Your task to perform on an android device: open app "Upside-Cash back on gas & food" Image 0: 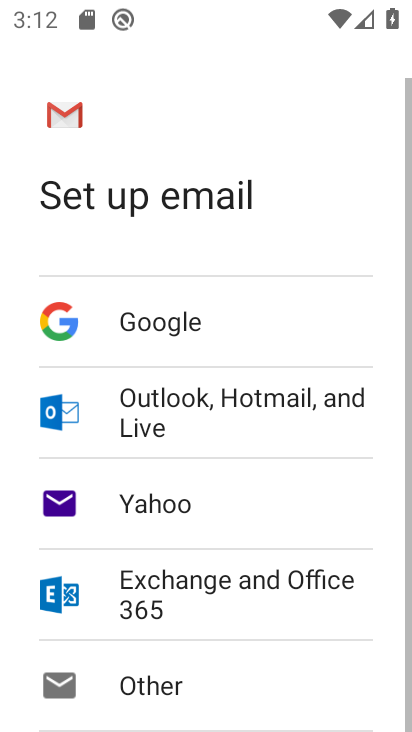
Step 0: press home button
Your task to perform on an android device: open app "Upside-Cash back on gas & food" Image 1: 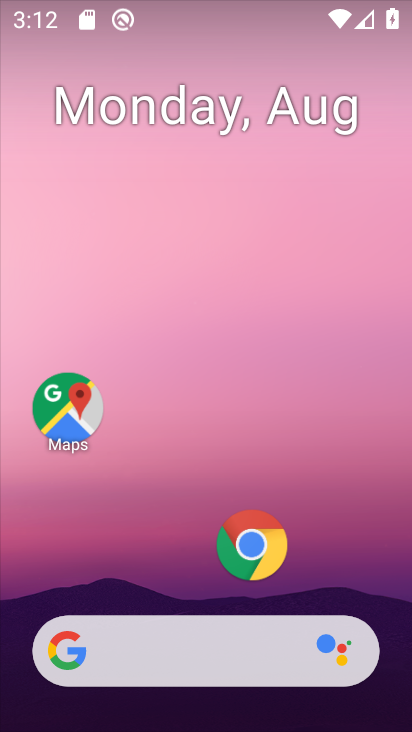
Step 1: drag from (148, 558) to (238, 3)
Your task to perform on an android device: open app "Upside-Cash back on gas & food" Image 2: 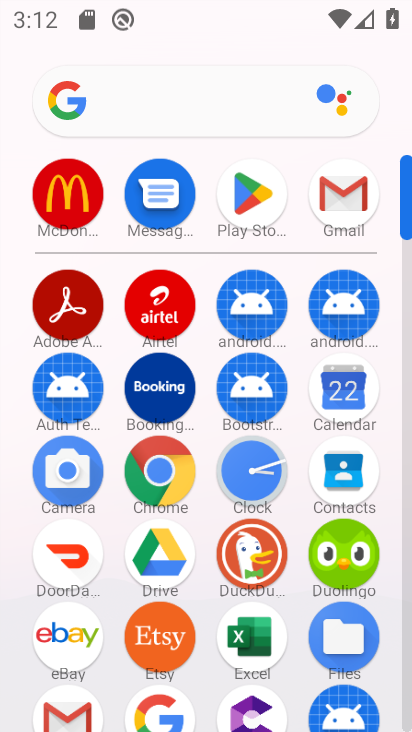
Step 2: click (244, 208)
Your task to perform on an android device: open app "Upside-Cash back on gas & food" Image 3: 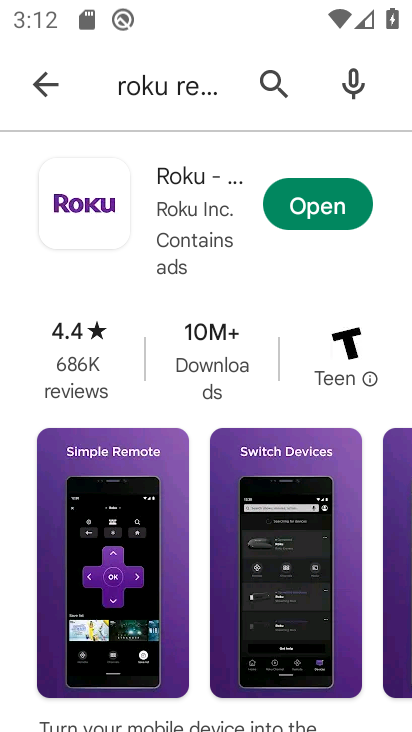
Step 3: click (275, 86)
Your task to perform on an android device: open app "Upside-Cash back on gas & food" Image 4: 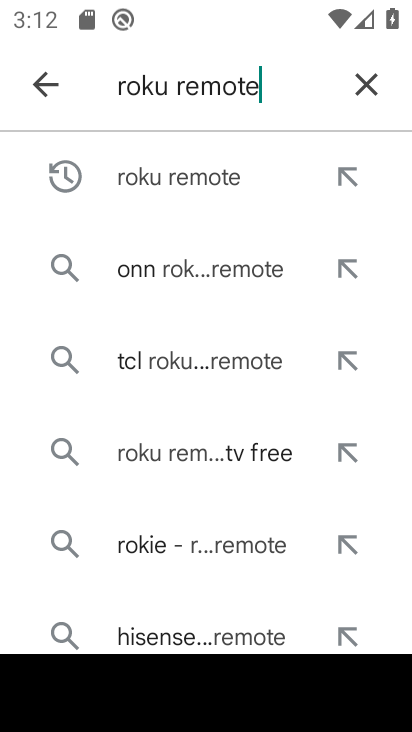
Step 4: click (386, 81)
Your task to perform on an android device: open app "Upside-Cash back on gas & food" Image 5: 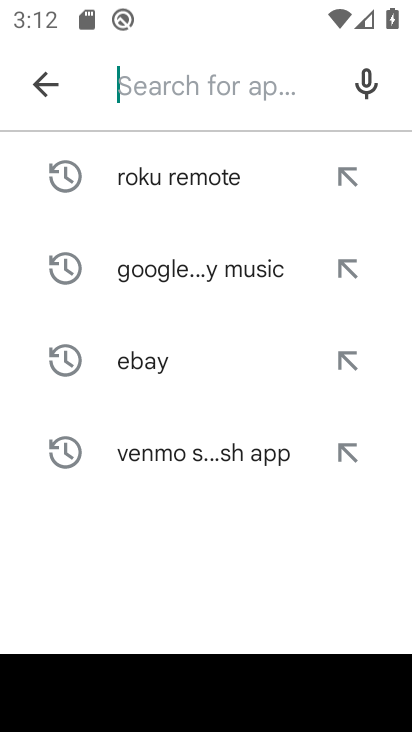
Step 5: click (142, 79)
Your task to perform on an android device: open app "Upside-Cash back on gas & food" Image 6: 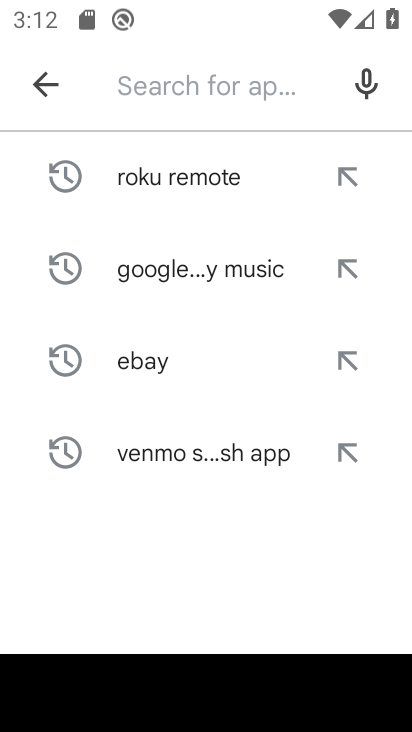
Step 6: type "upside cash"
Your task to perform on an android device: open app "Upside-Cash back on gas & food" Image 7: 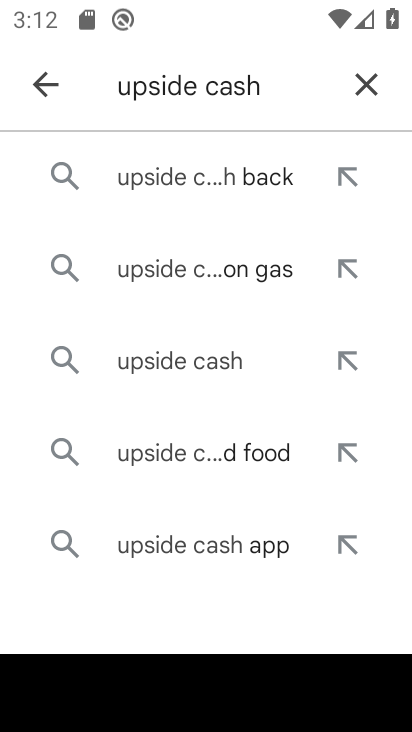
Step 7: click (193, 178)
Your task to perform on an android device: open app "Upside-Cash back on gas & food" Image 8: 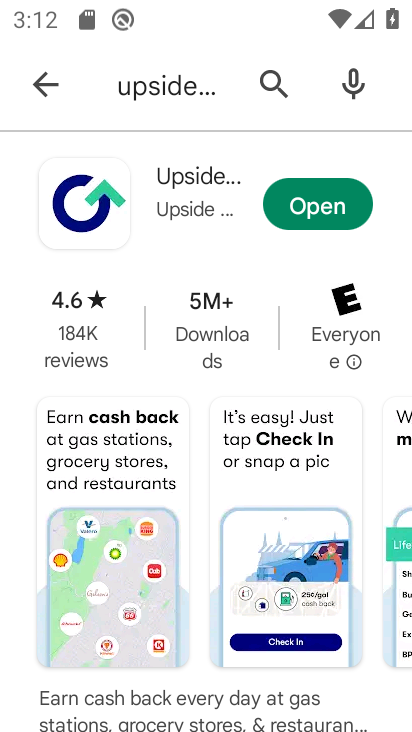
Step 8: click (291, 191)
Your task to perform on an android device: open app "Upside-Cash back on gas & food" Image 9: 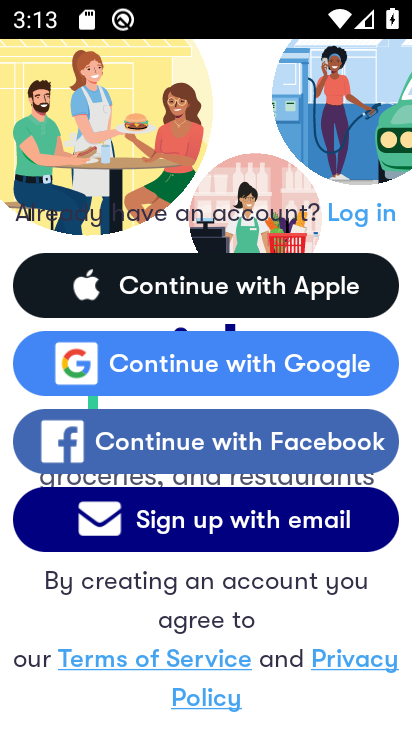
Step 9: task complete